Your task to perform on an android device: refresh tabs in the chrome app Image 0: 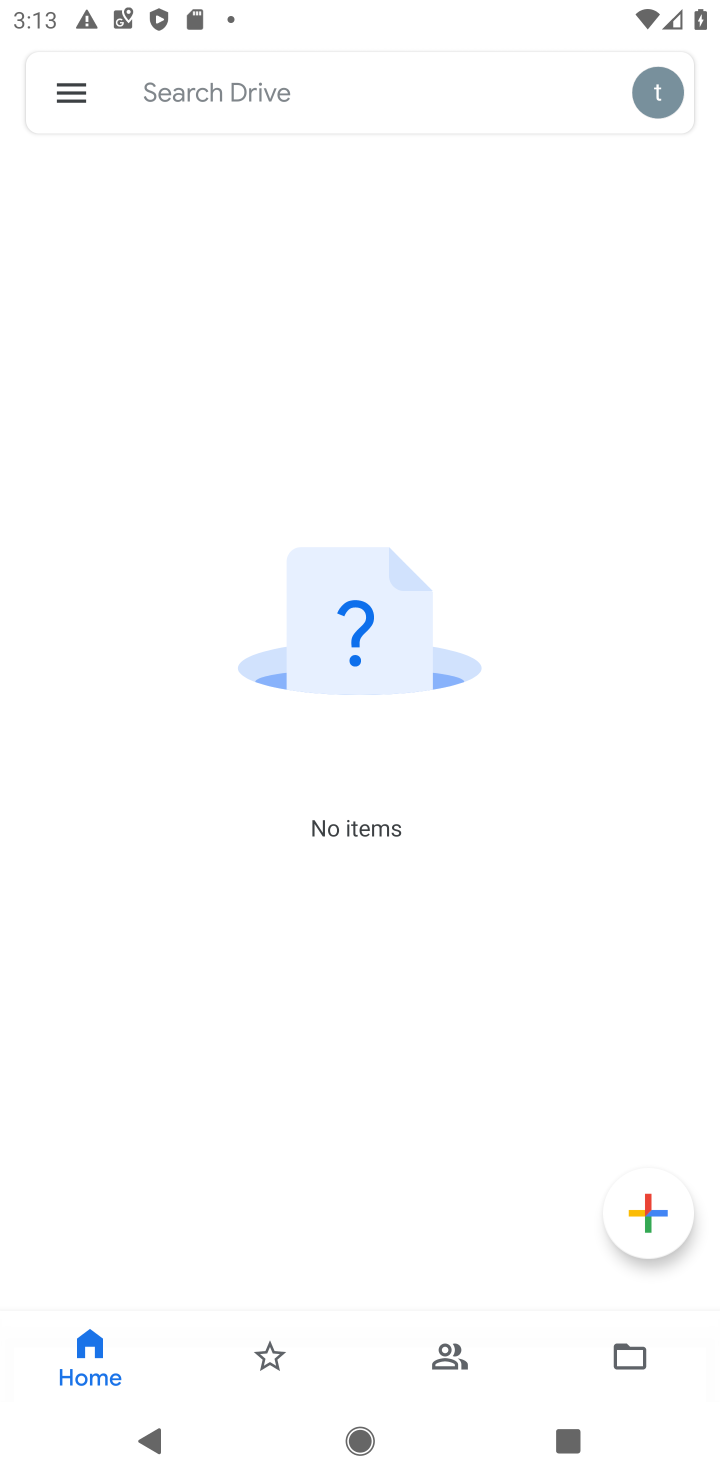
Step 0: press home button
Your task to perform on an android device: refresh tabs in the chrome app Image 1: 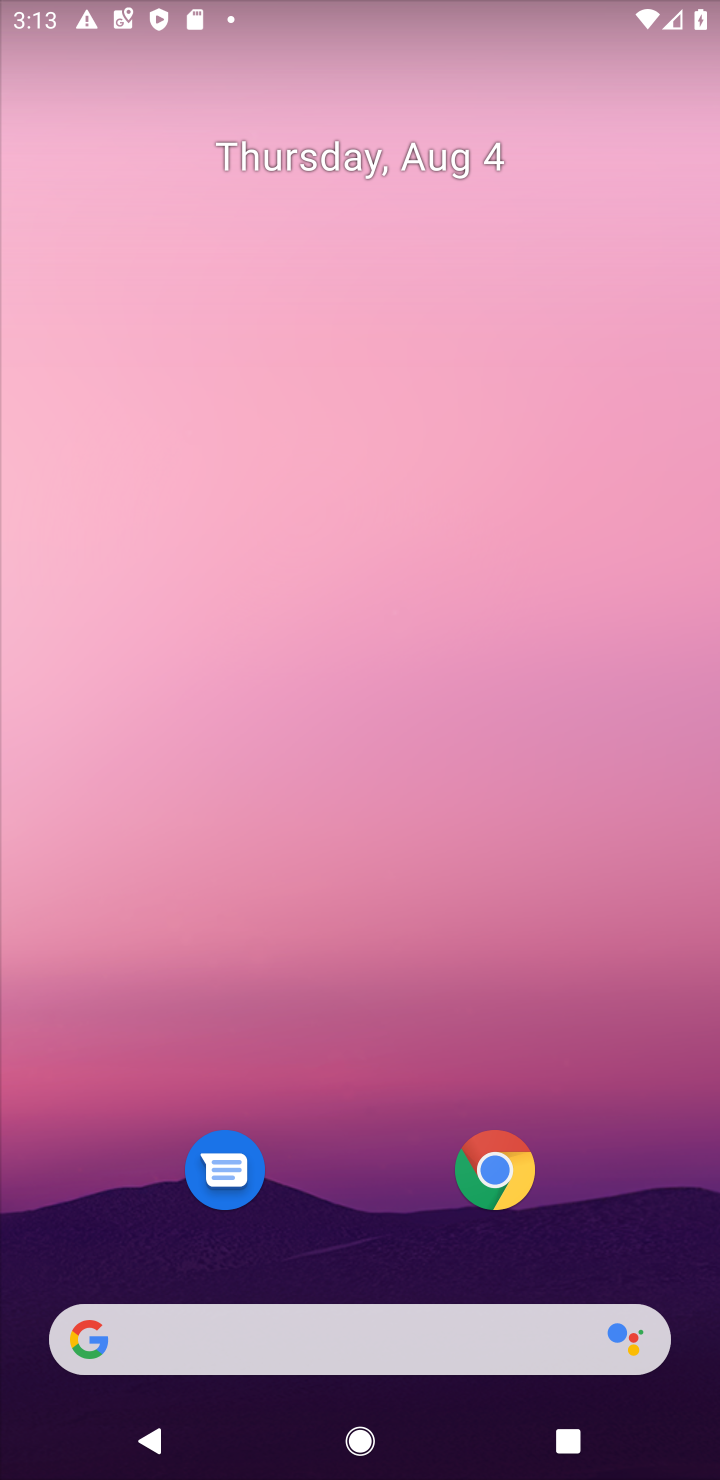
Step 1: click (493, 1167)
Your task to perform on an android device: refresh tabs in the chrome app Image 2: 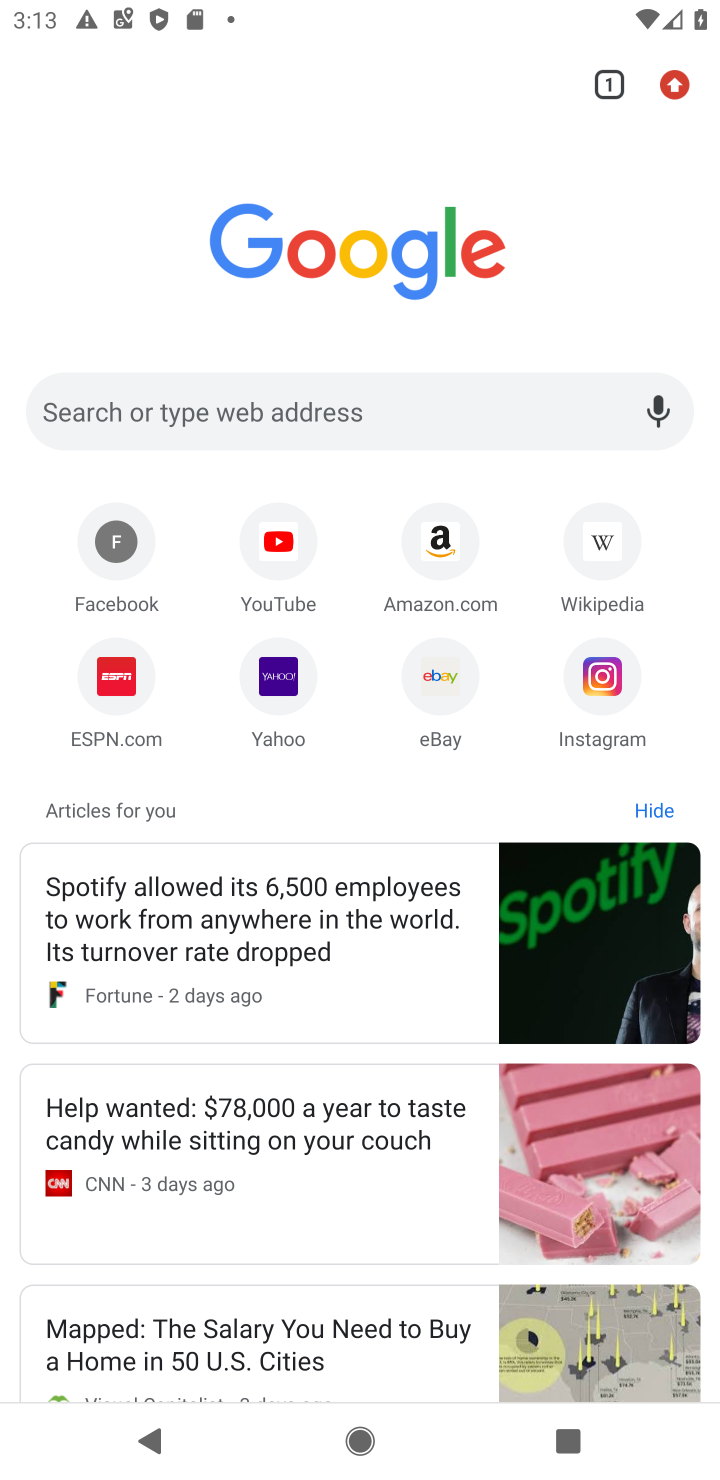
Step 2: click (665, 96)
Your task to perform on an android device: refresh tabs in the chrome app Image 3: 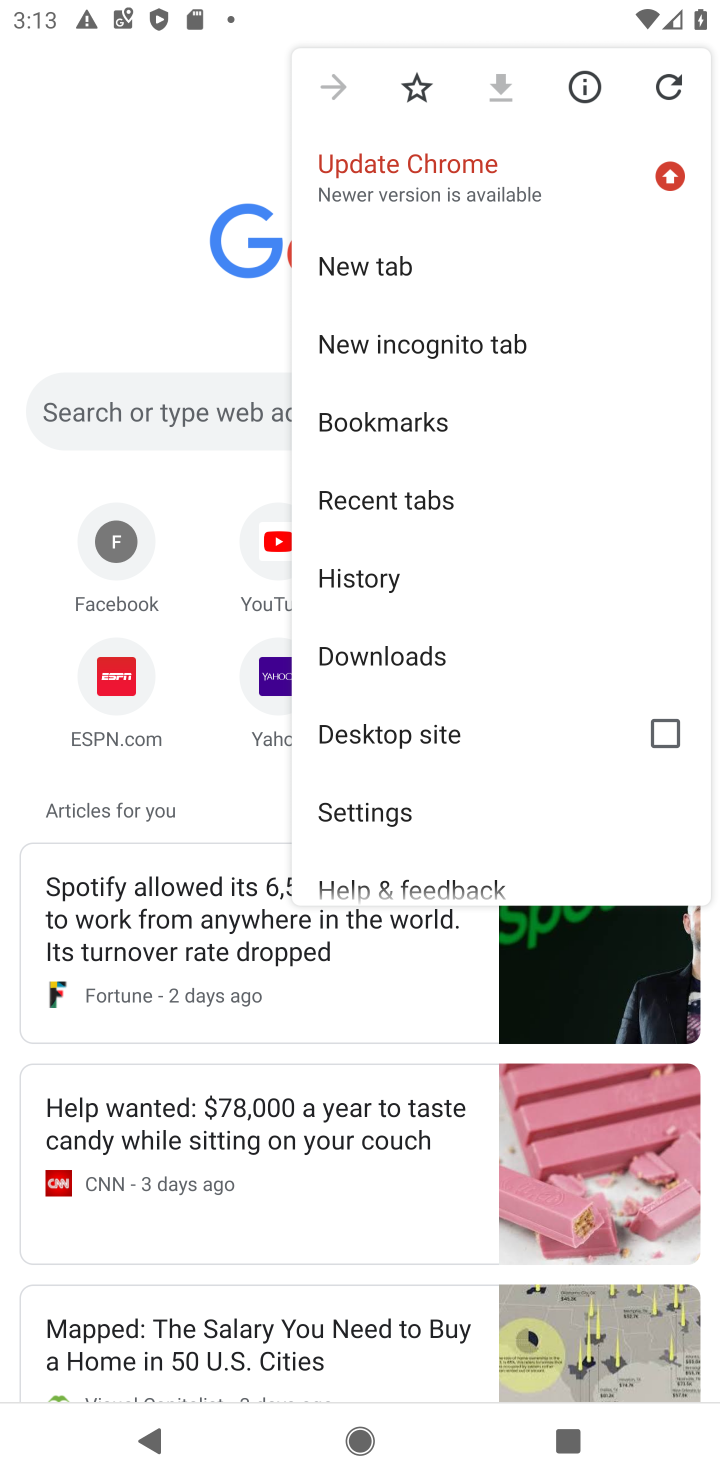
Step 3: click (669, 89)
Your task to perform on an android device: refresh tabs in the chrome app Image 4: 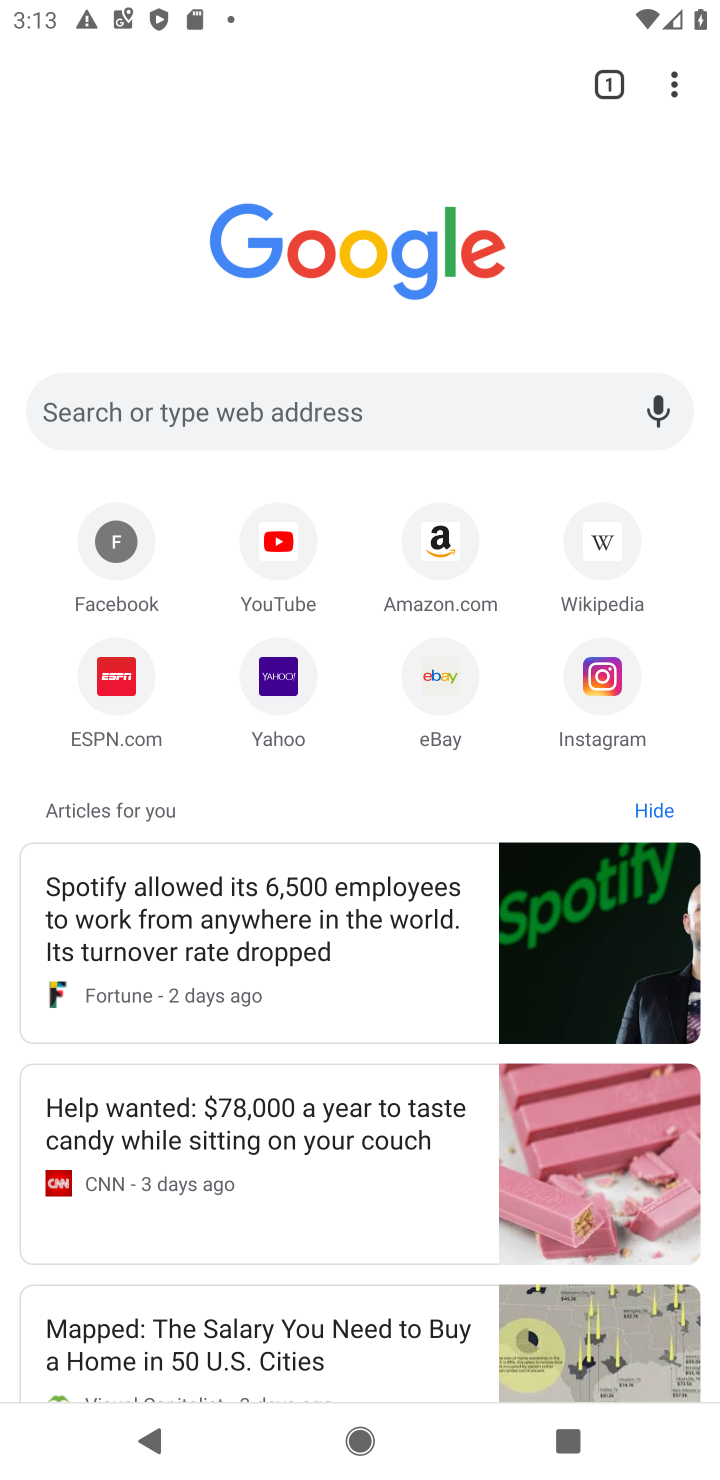
Step 4: task complete